Your task to perform on an android device: turn on wifi Image 0: 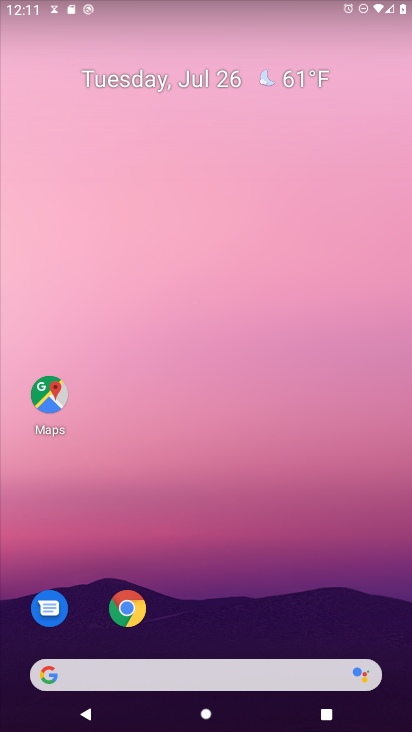
Step 0: drag from (199, 673) to (199, 60)
Your task to perform on an android device: turn on wifi Image 1: 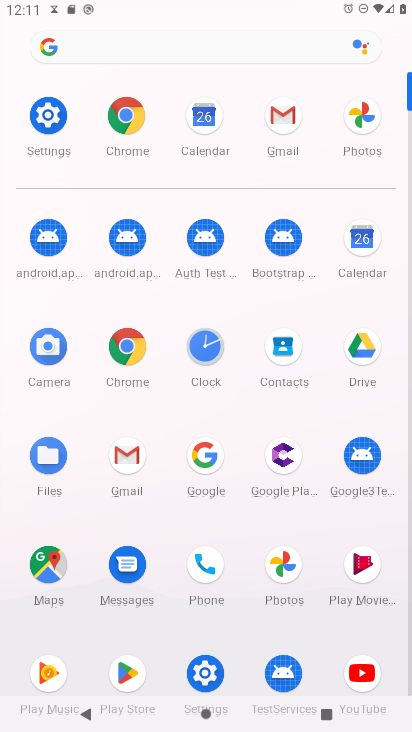
Step 1: click (48, 115)
Your task to perform on an android device: turn on wifi Image 2: 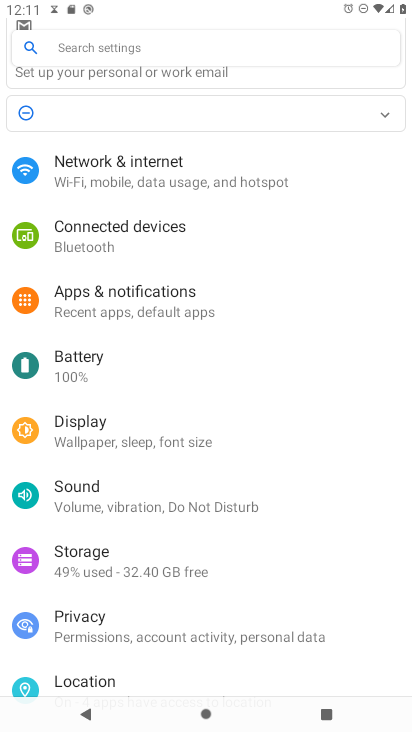
Step 2: click (87, 182)
Your task to perform on an android device: turn on wifi Image 3: 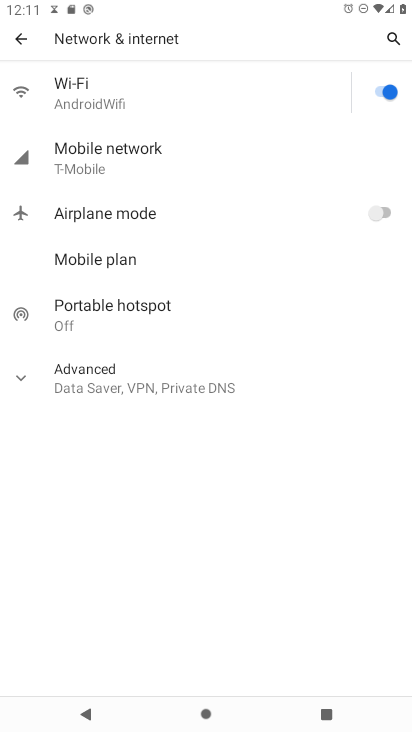
Step 3: task complete